Your task to perform on an android device: delete a single message in the gmail app Image 0: 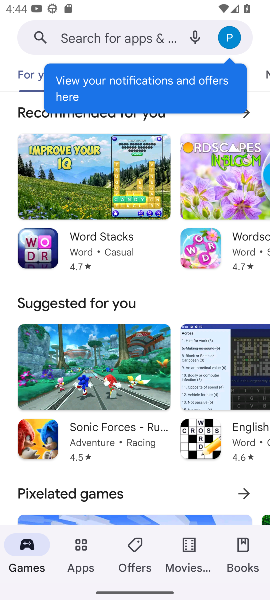
Step 0: press home button
Your task to perform on an android device: delete a single message in the gmail app Image 1: 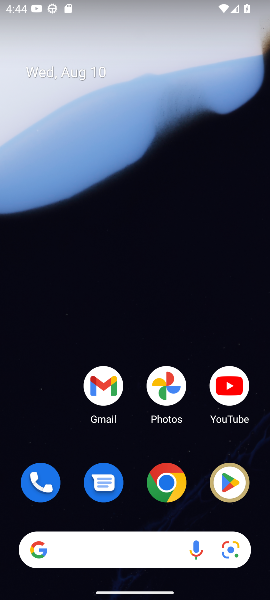
Step 1: drag from (55, 403) to (79, 189)
Your task to perform on an android device: delete a single message in the gmail app Image 2: 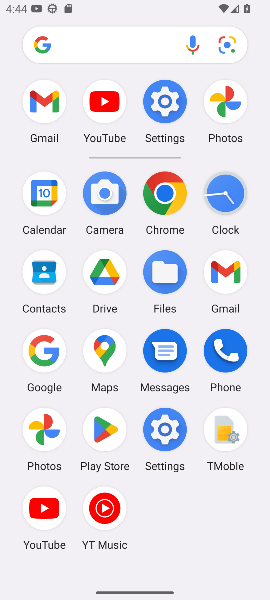
Step 2: click (41, 119)
Your task to perform on an android device: delete a single message in the gmail app Image 3: 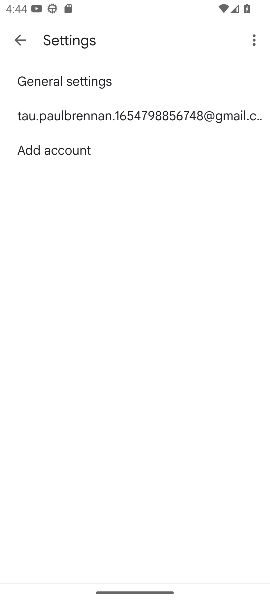
Step 3: click (18, 38)
Your task to perform on an android device: delete a single message in the gmail app Image 4: 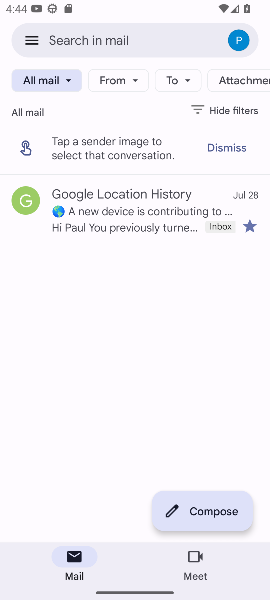
Step 4: click (35, 198)
Your task to perform on an android device: delete a single message in the gmail app Image 5: 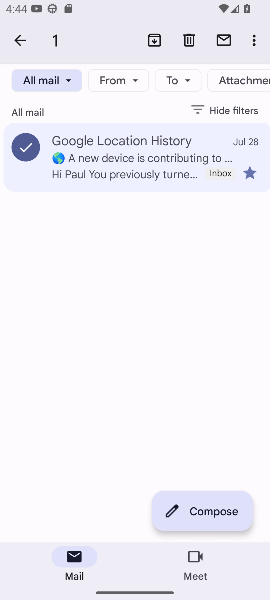
Step 5: click (27, 198)
Your task to perform on an android device: delete a single message in the gmail app Image 6: 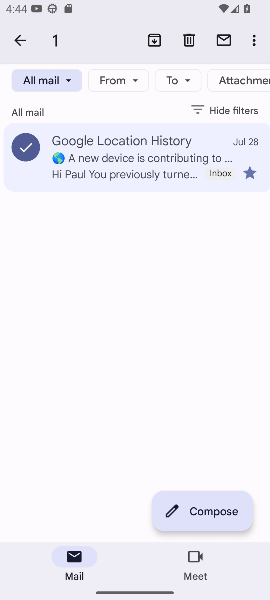
Step 6: click (194, 36)
Your task to perform on an android device: delete a single message in the gmail app Image 7: 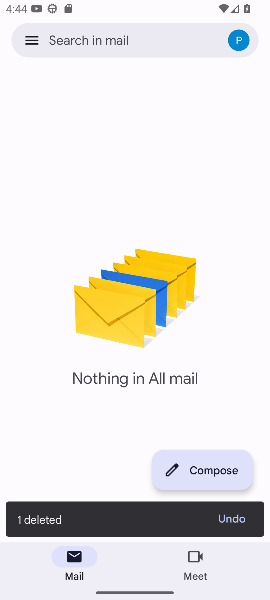
Step 7: task complete